Your task to perform on an android device: Go to accessibility settings Image 0: 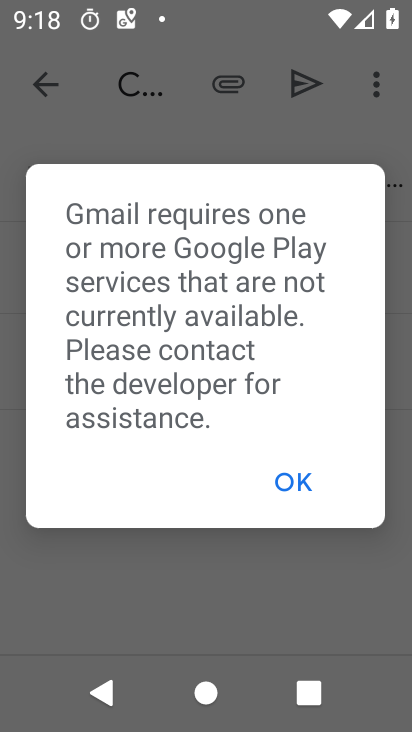
Step 0: press home button
Your task to perform on an android device: Go to accessibility settings Image 1: 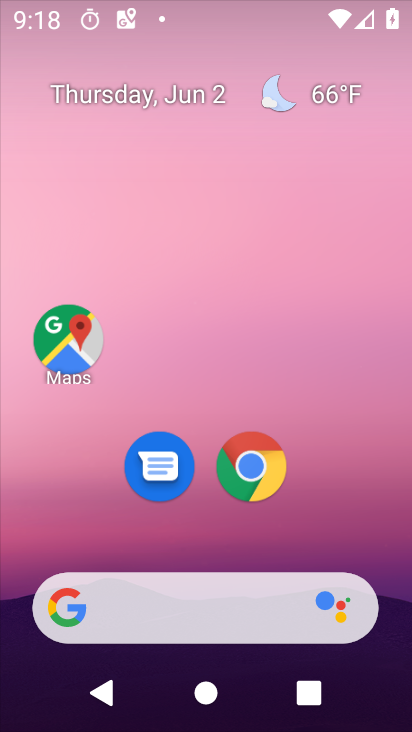
Step 1: drag from (2, 389) to (239, 211)
Your task to perform on an android device: Go to accessibility settings Image 2: 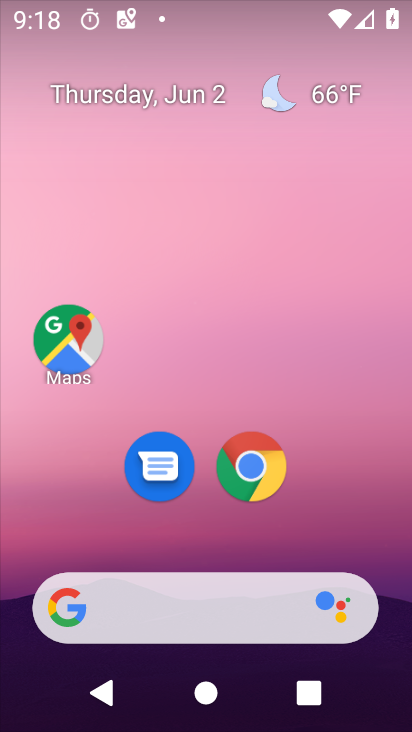
Step 2: drag from (12, 415) to (275, 122)
Your task to perform on an android device: Go to accessibility settings Image 3: 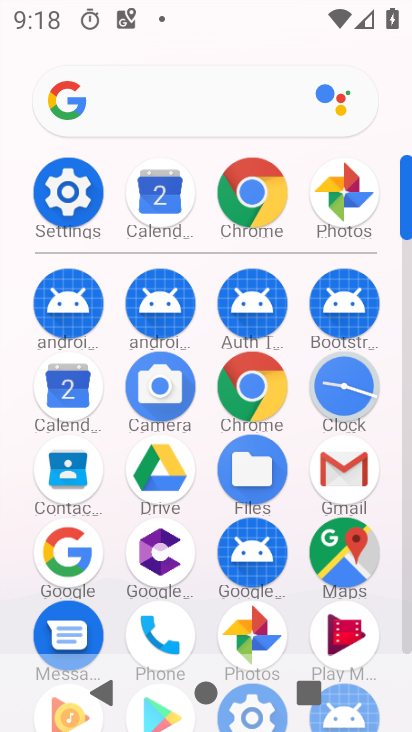
Step 3: click (60, 186)
Your task to perform on an android device: Go to accessibility settings Image 4: 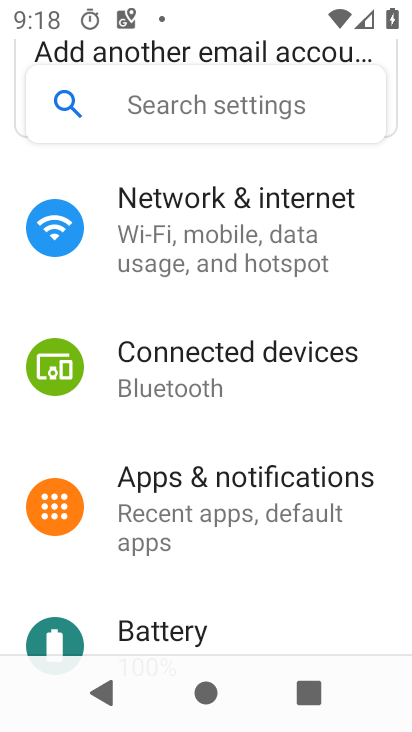
Step 4: drag from (0, 401) to (174, 218)
Your task to perform on an android device: Go to accessibility settings Image 5: 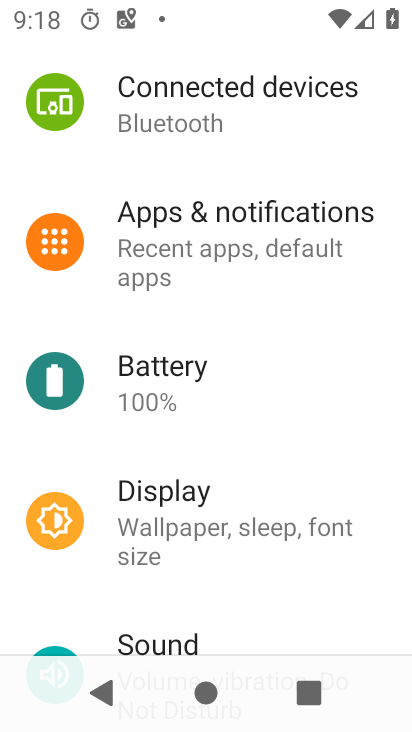
Step 5: drag from (50, 493) to (229, 233)
Your task to perform on an android device: Go to accessibility settings Image 6: 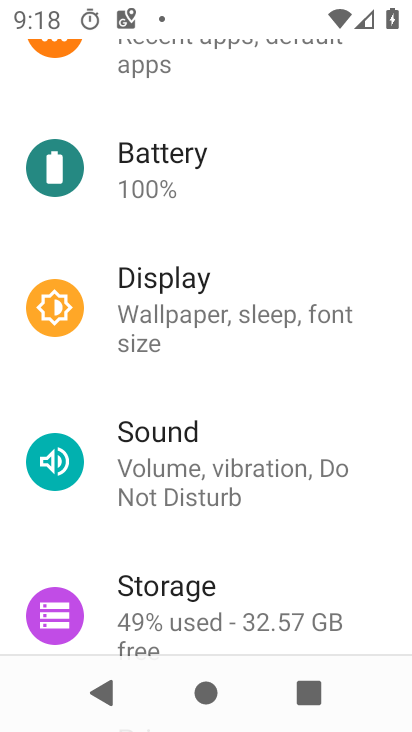
Step 6: drag from (0, 572) to (215, 232)
Your task to perform on an android device: Go to accessibility settings Image 7: 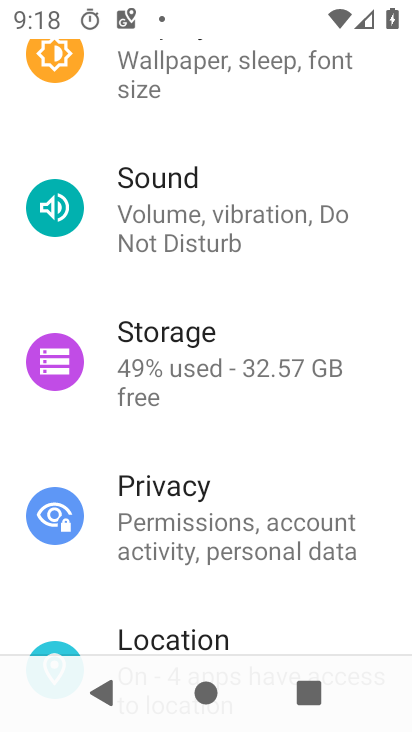
Step 7: drag from (35, 545) to (265, 223)
Your task to perform on an android device: Go to accessibility settings Image 8: 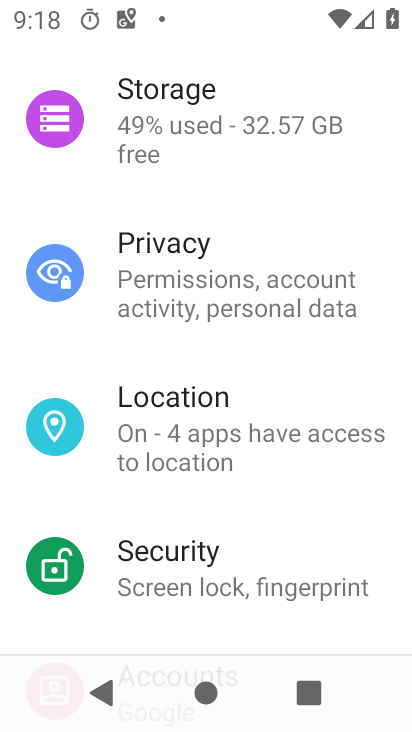
Step 8: drag from (17, 507) to (189, 272)
Your task to perform on an android device: Go to accessibility settings Image 9: 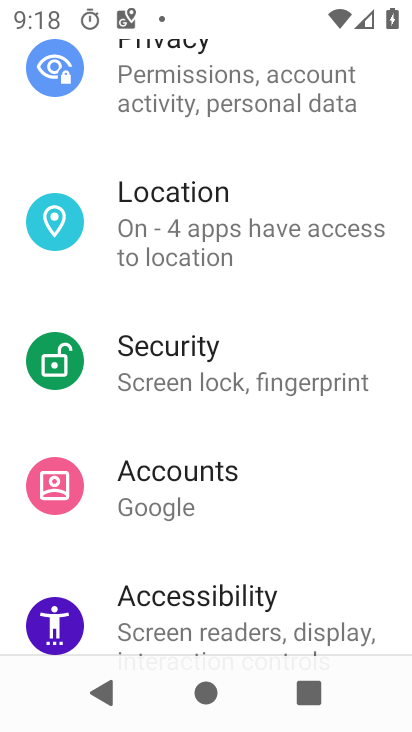
Step 9: click (130, 605)
Your task to perform on an android device: Go to accessibility settings Image 10: 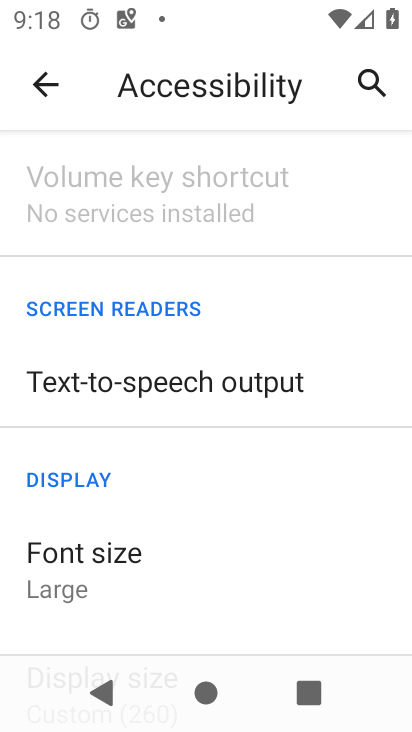
Step 10: task complete